Your task to perform on an android device: Open CNN.com Image 0: 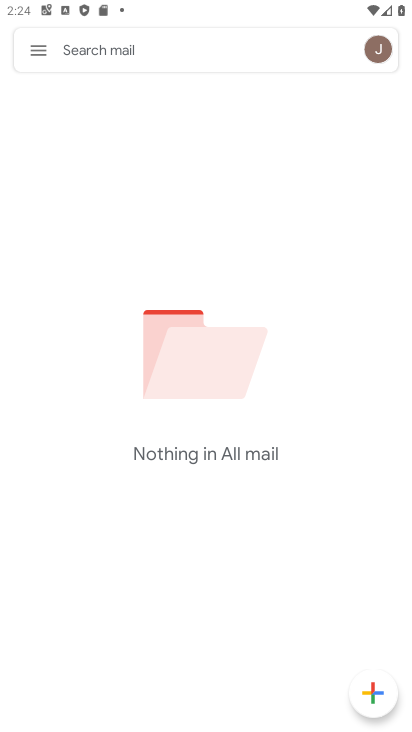
Step 0: press home button
Your task to perform on an android device: Open CNN.com Image 1: 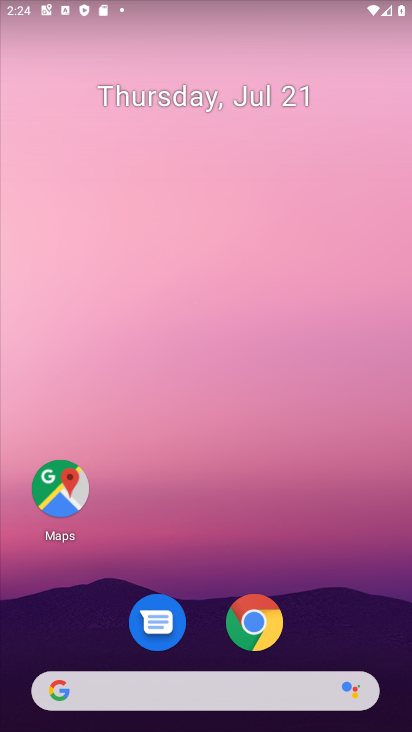
Step 1: click (273, 649)
Your task to perform on an android device: Open CNN.com Image 2: 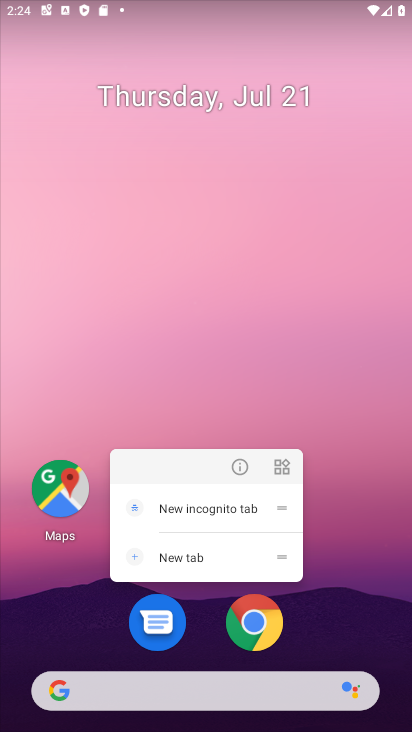
Step 2: click (265, 613)
Your task to perform on an android device: Open CNN.com Image 3: 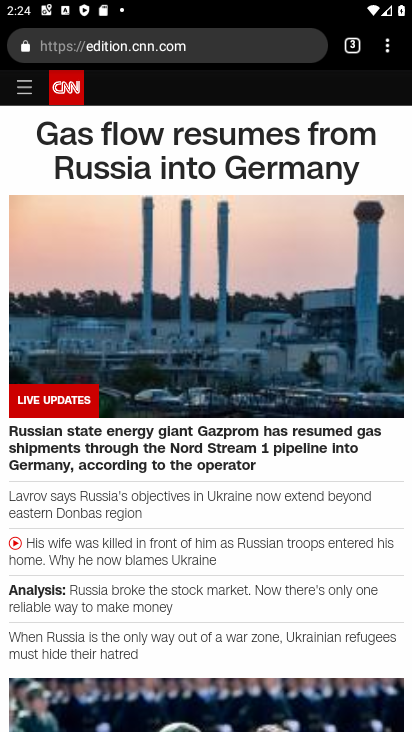
Step 3: click (179, 52)
Your task to perform on an android device: Open CNN.com Image 4: 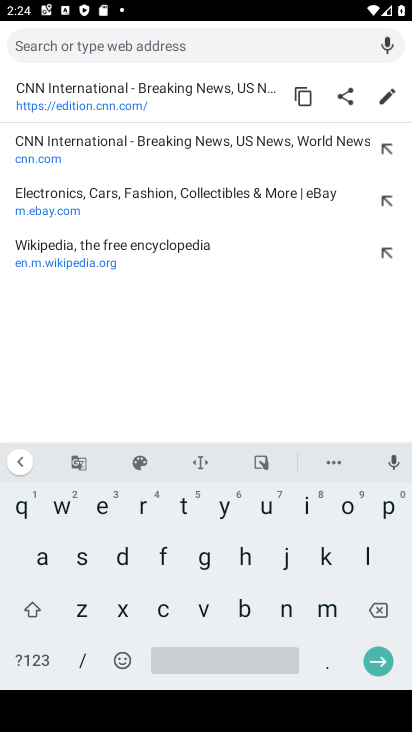
Step 4: click (159, 78)
Your task to perform on an android device: Open CNN.com Image 5: 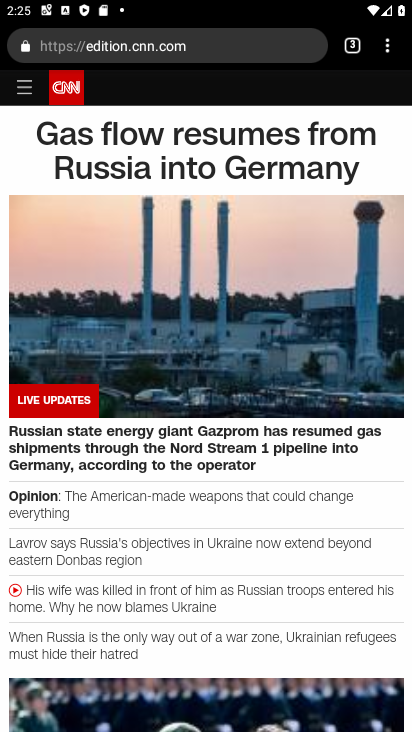
Step 5: task complete